Your task to perform on an android device: turn off data saver in the chrome app Image 0: 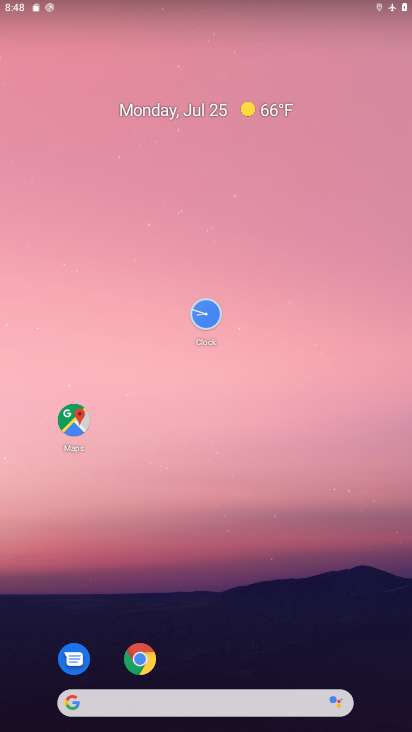
Step 0: drag from (258, 711) to (212, 160)
Your task to perform on an android device: turn off data saver in the chrome app Image 1: 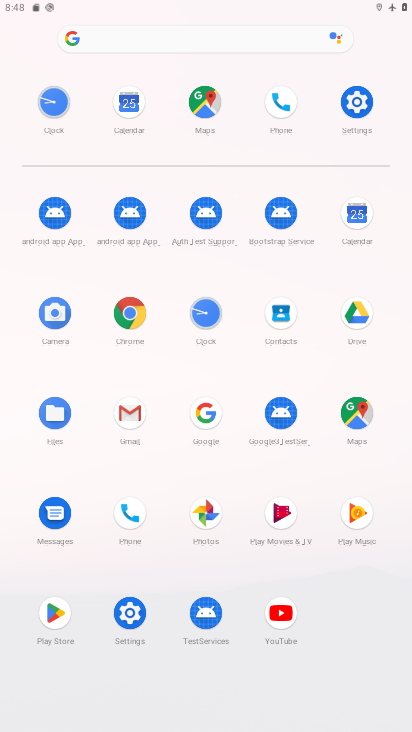
Step 1: click (120, 307)
Your task to perform on an android device: turn off data saver in the chrome app Image 2: 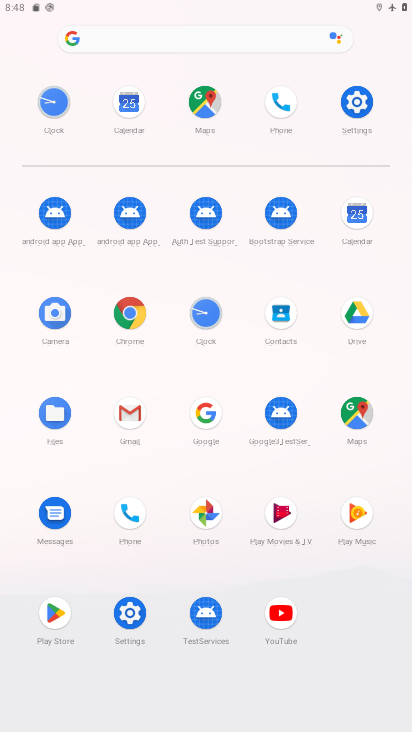
Step 2: click (123, 306)
Your task to perform on an android device: turn off data saver in the chrome app Image 3: 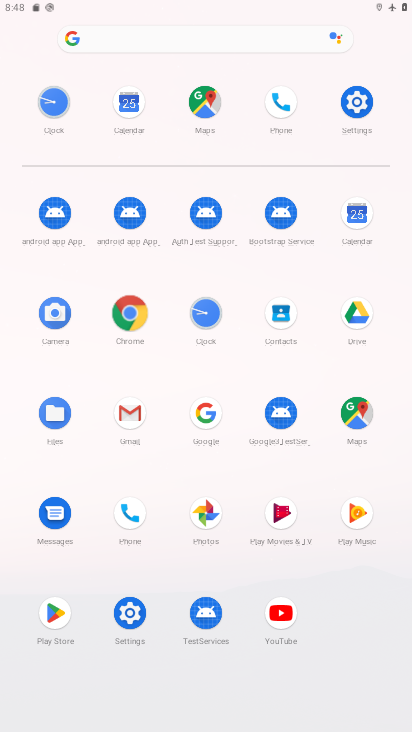
Step 3: click (123, 308)
Your task to perform on an android device: turn off data saver in the chrome app Image 4: 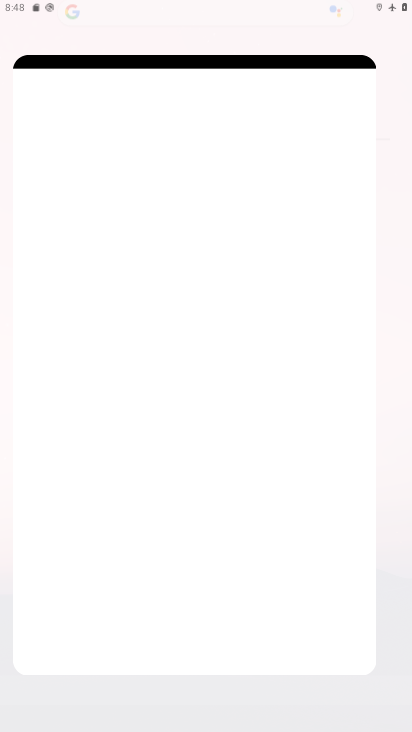
Step 4: click (129, 306)
Your task to perform on an android device: turn off data saver in the chrome app Image 5: 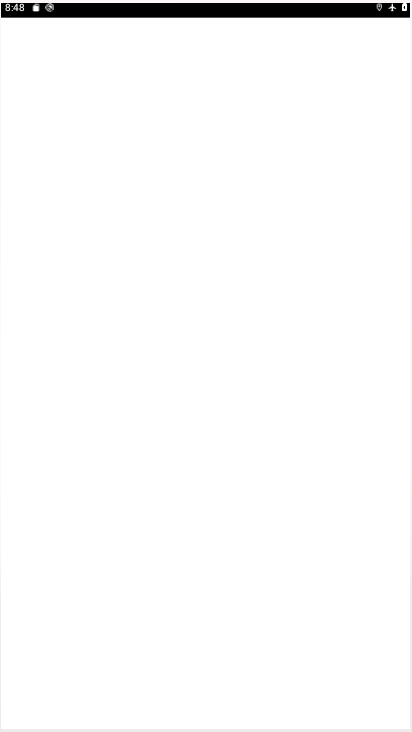
Step 5: click (131, 307)
Your task to perform on an android device: turn off data saver in the chrome app Image 6: 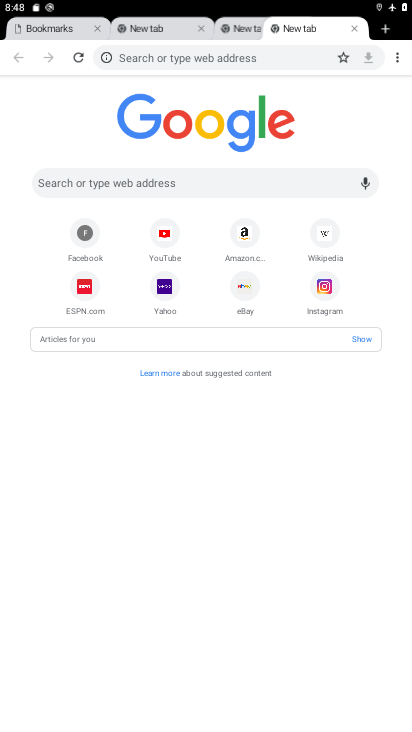
Step 6: drag from (398, 63) to (280, 262)
Your task to perform on an android device: turn off data saver in the chrome app Image 7: 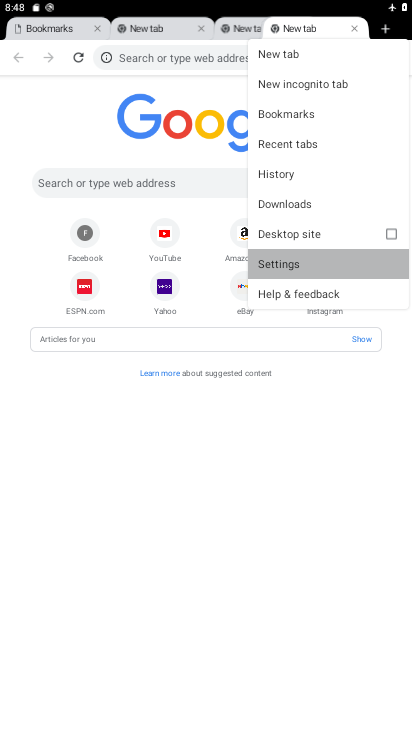
Step 7: click (279, 262)
Your task to perform on an android device: turn off data saver in the chrome app Image 8: 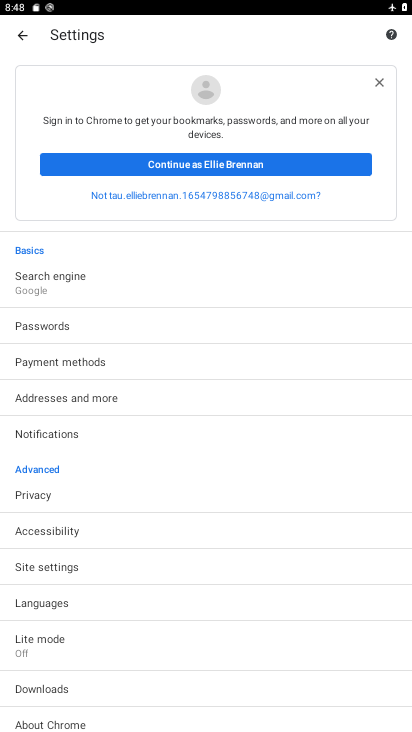
Step 8: drag from (41, 660) to (40, 227)
Your task to perform on an android device: turn off data saver in the chrome app Image 9: 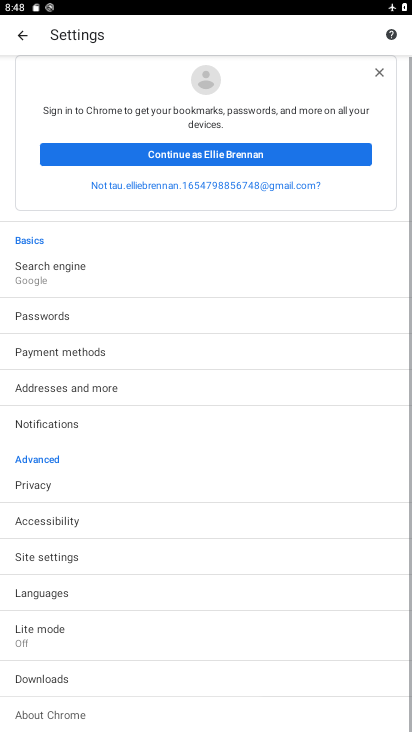
Step 9: drag from (87, 536) to (65, 411)
Your task to perform on an android device: turn off data saver in the chrome app Image 10: 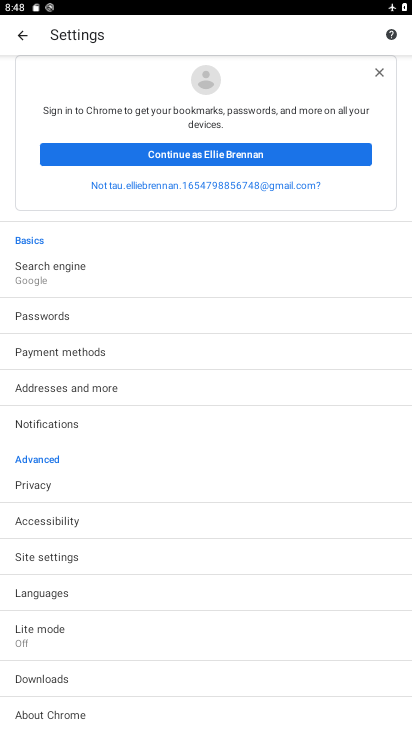
Step 10: click (44, 547)
Your task to perform on an android device: turn off data saver in the chrome app Image 11: 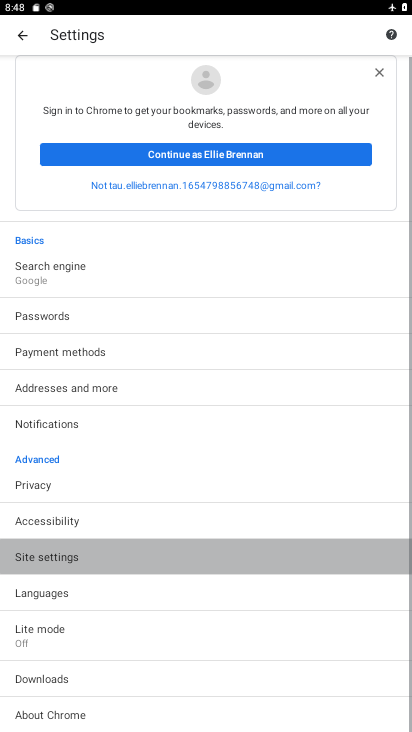
Step 11: click (44, 548)
Your task to perform on an android device: turn off data saver in the chrome app Image 12: 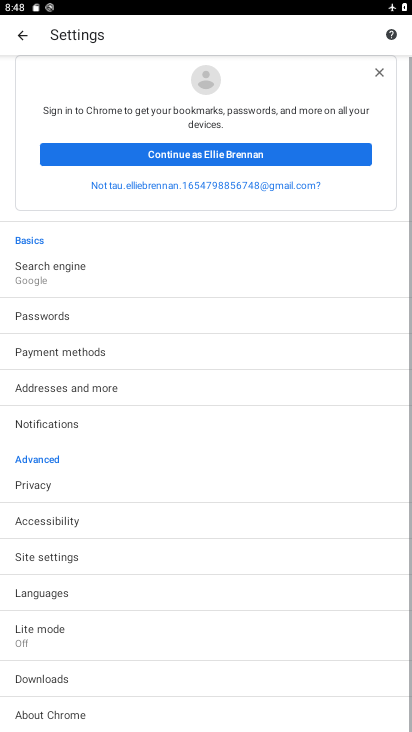
Step 12: click (46, 550)
Your task to perform on an android device: turn off data saver in the chrome app Image 13: 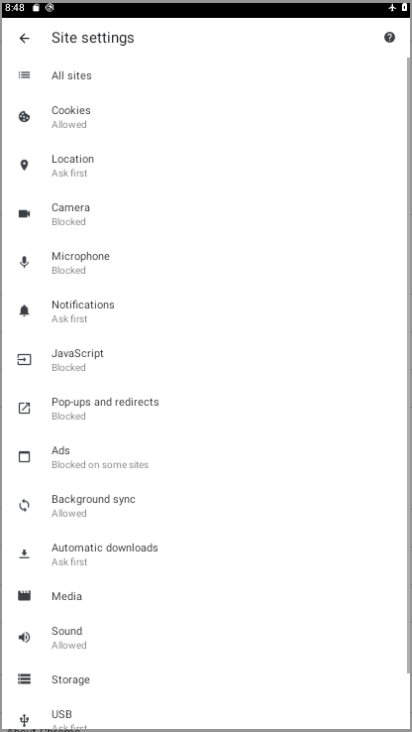
Step 13: click (48, 551)
Your task to perform on an android device: turn off data saver in the chrome app Image 14: 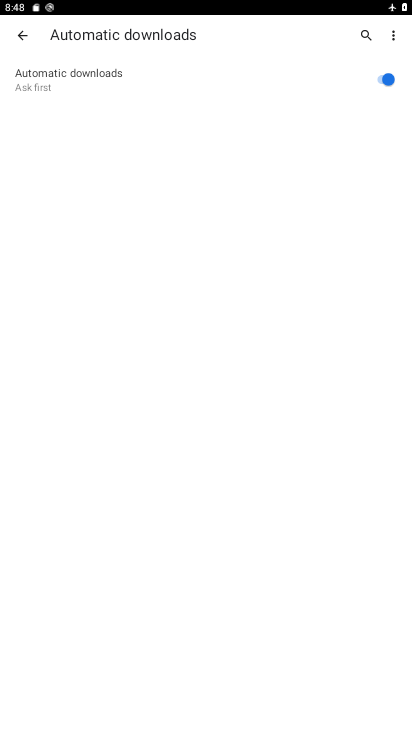
Step 14: click (23, 41)
Your task to perform on an android device: turn off data saver in the chrome app Image 15: 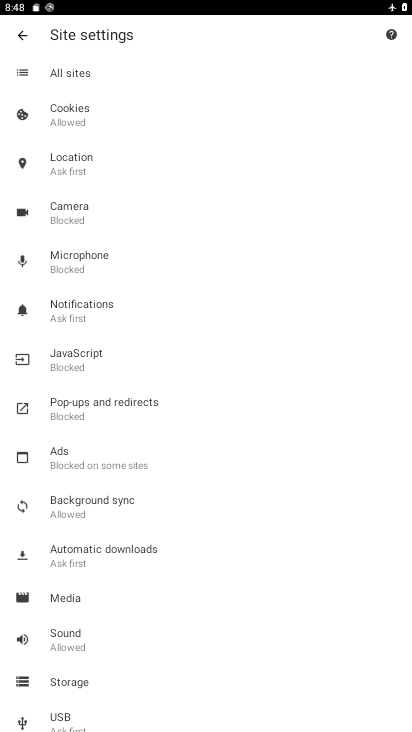
Step 15: click (14, 31)
Your task to perform on an android device: turn off data saver in the chrome app Image 16: 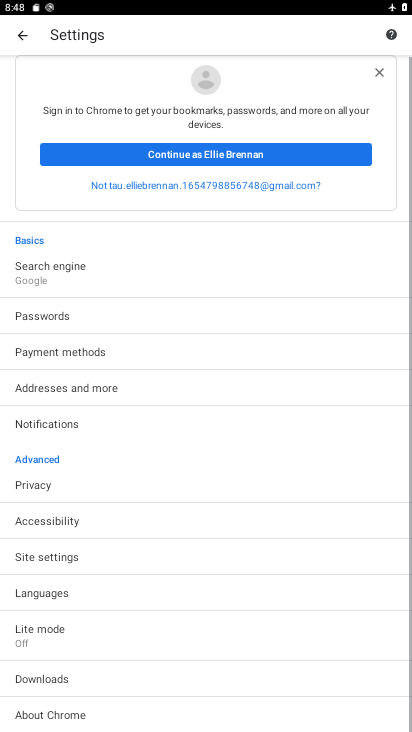
Step 16: click (51, 621)
Your task to perform on an android device: turn off data saver in the chrome app Image 17: 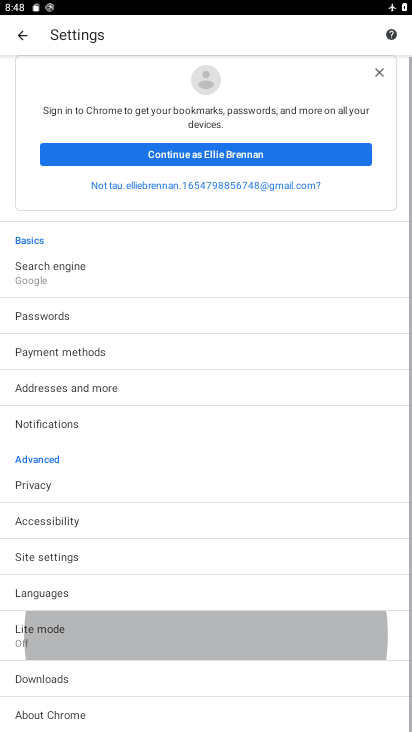
Step 17: click (51, 621)
Your task to perform on an android device: turn off data saver in the chrome app Image 18: 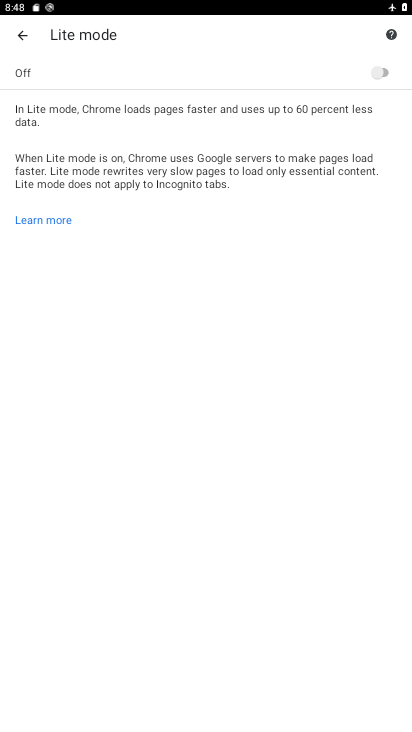
Step 18: task complete